Your task to perform on an android device: Is it going to rain tomorrow? Image 0: 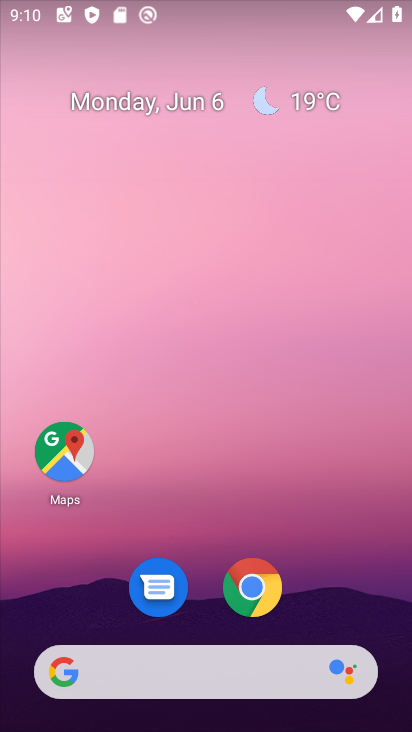
Step 0: click (303, 112)
Your task to perform on an android device: Is it going to rain tomorrow? Image 1: 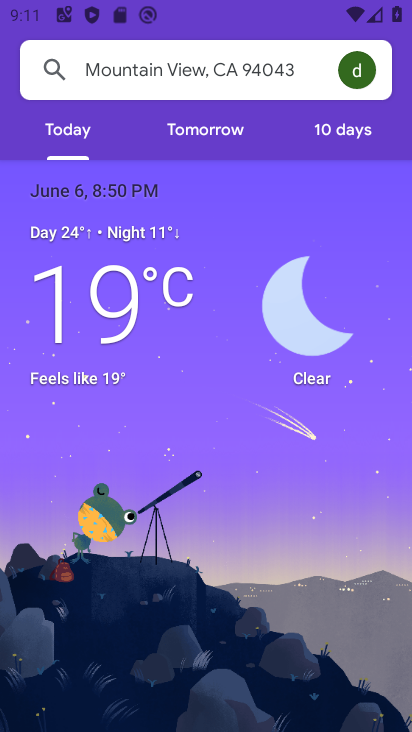
Step 1: click (187, 132)
Your task to perform on an android device: Is it going to rain tomorrow? Image 2: 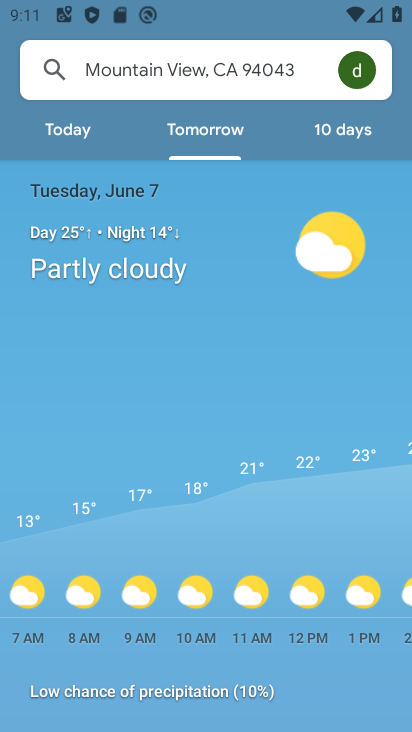
Step 2: task complete